Your task to perform on an android device: Is it going to rain today? Image 0: 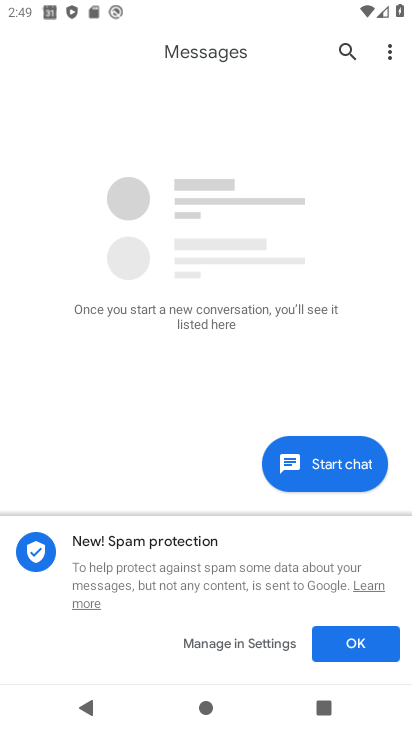
Step 0: press back button
Your task to perform on an android device: Is it going to rain today? Image 1: 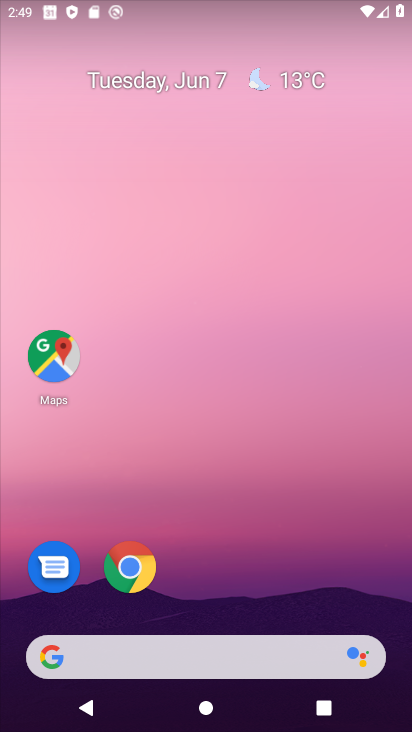
Step 1: click (272, 83)
Your task to perform on an android device: Is it going to rain today? Image 2: 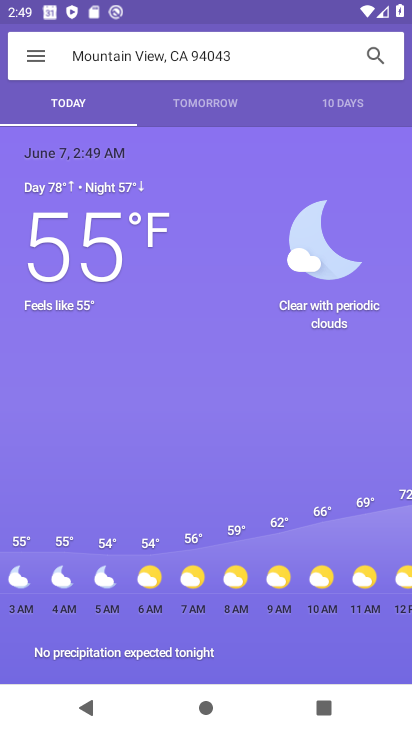
Step 2: task complete